Your task to perform on an android device: turn on improve location accuracy Image 0: 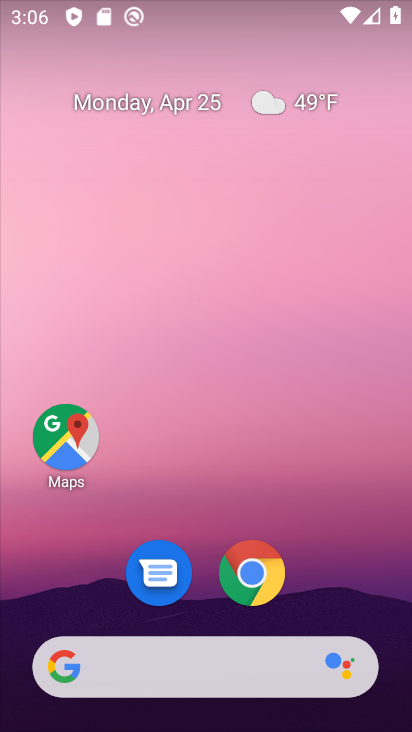
Step 0: drag from (339, 565) to (275, 76)
Your task to perform on an android device: turn on improve location accuracy Image 1: 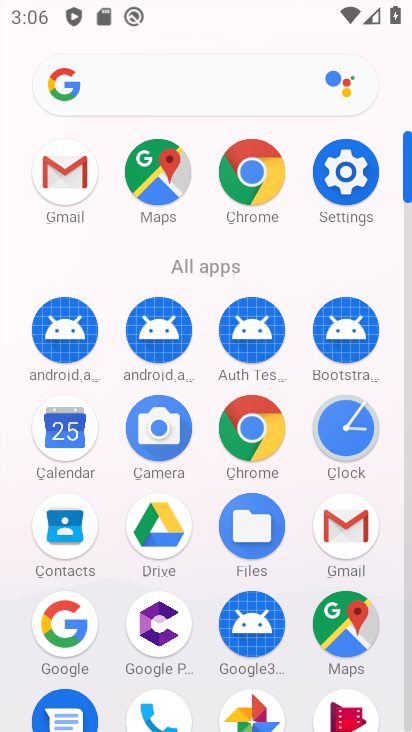
Step 1: click (328, 166)
Your task to perform on an android device: turn on improve location accuracy Image 2: 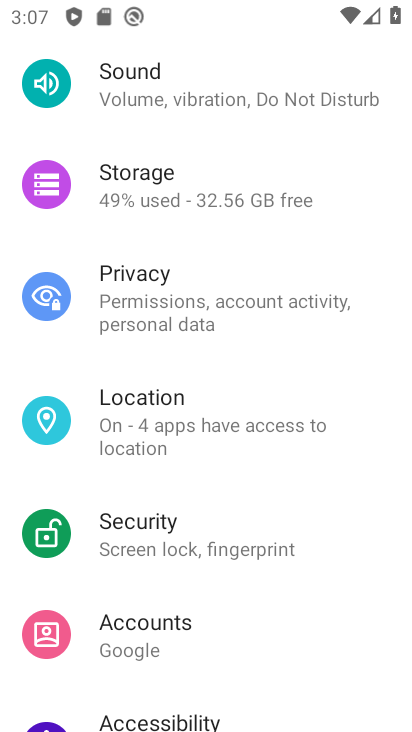
Step 2: drag from (199, 520) to (169, 216)
Your task to perform on an android device: turn on improve location accuracy Image 3: 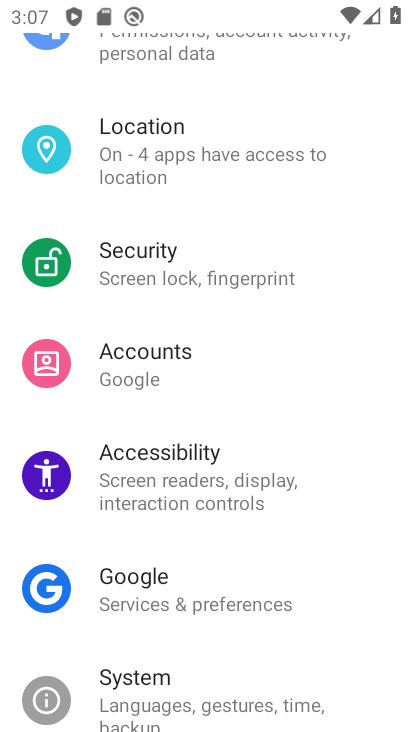
Step 3: drag from (152, 110) to (184, 447)
Your task to perform on an android device: turn on improve location accuracy Image 4: 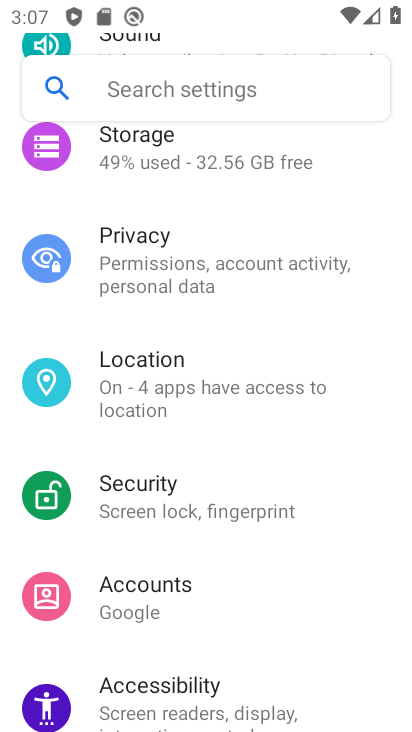
Step 4: click (165, 392)
Your task to perform on an android device: turn on improve location accuracy Image 5: 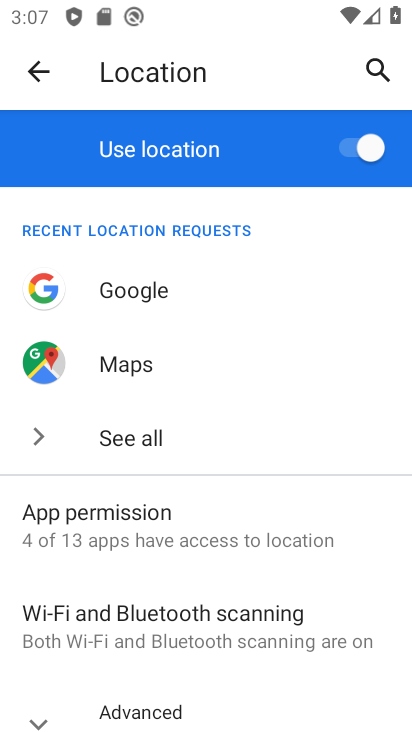
Step 5: drag from (200, 583) to (169, 253)
Your task to perform on an android device: turn on improve location accuracy Image 6: 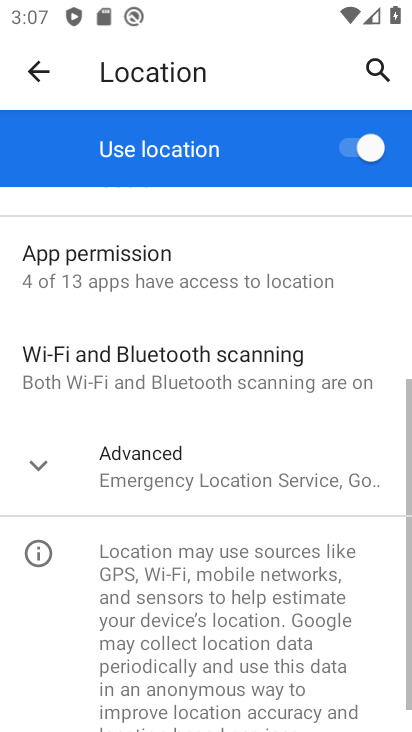
Step 6: click (105, 504)
Your task to perform on an android device: turn on improve location accuracy Image 7: 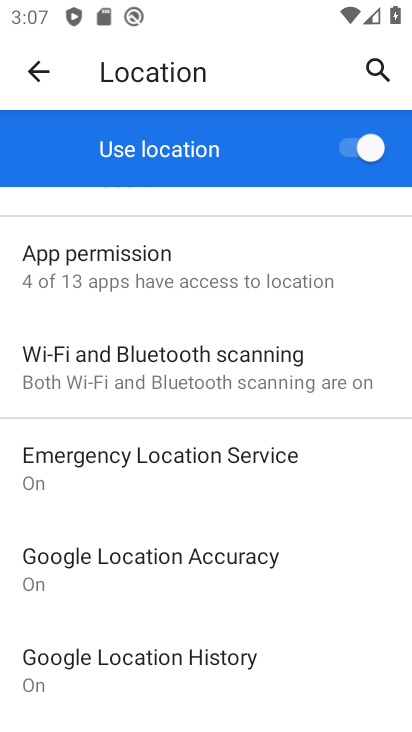
Step 7: click (168, 563)
Your task to perform on an android device: turn on improve location accuracy Image 8: 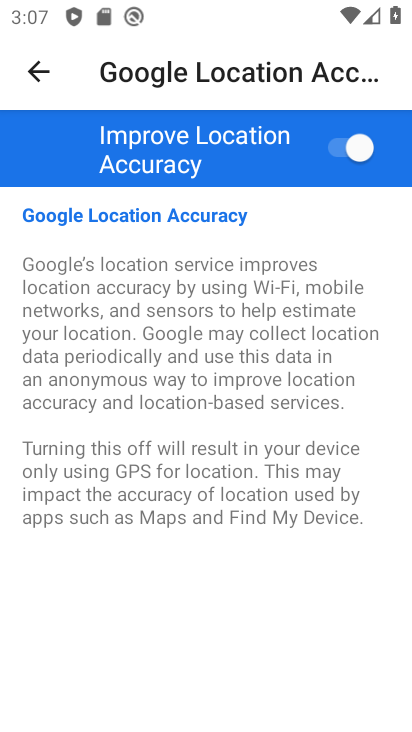
Step 8: task complete